Your task to perform on an android device: Open Google Chrome Image 0: 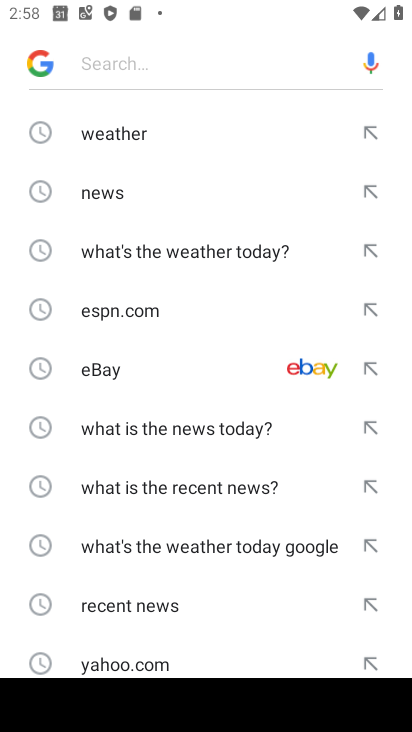
Step 0: press back button
Your task to perform on an android device: Open Google Chrome Image 1: 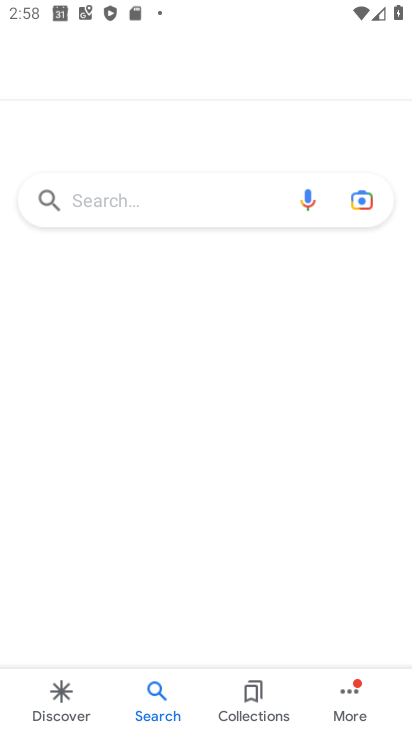
Step 1: press back button
Your task to perform on an android device: Open Google Chrome Image 2: 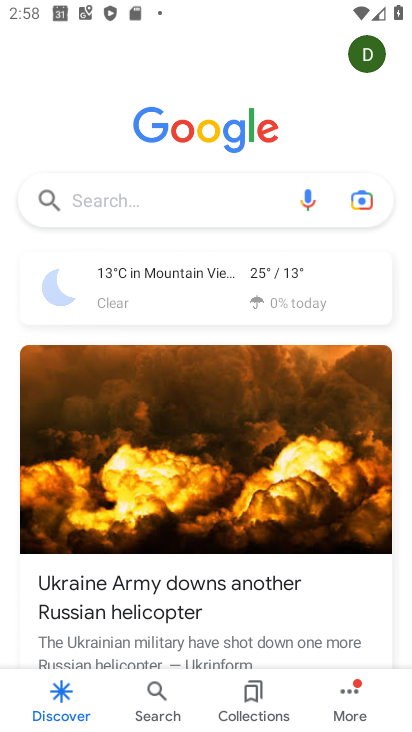
Step 2: press back button
Your task to perform on an android device: Open Google Chrome Image 3: 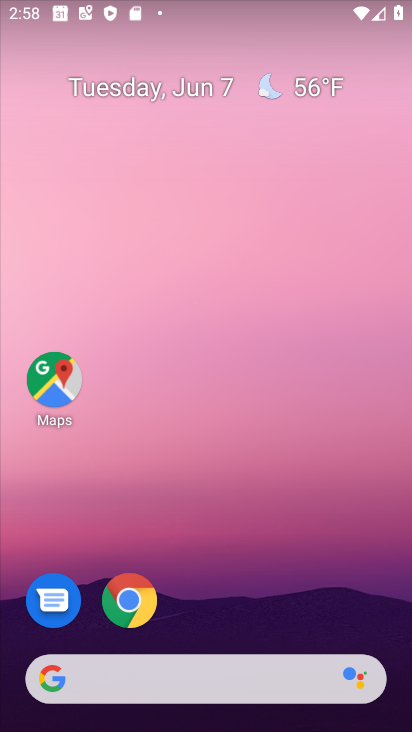
Step 3: click (121, 587)
Your task to perform on an android device: Open Google Chrome Image 4: 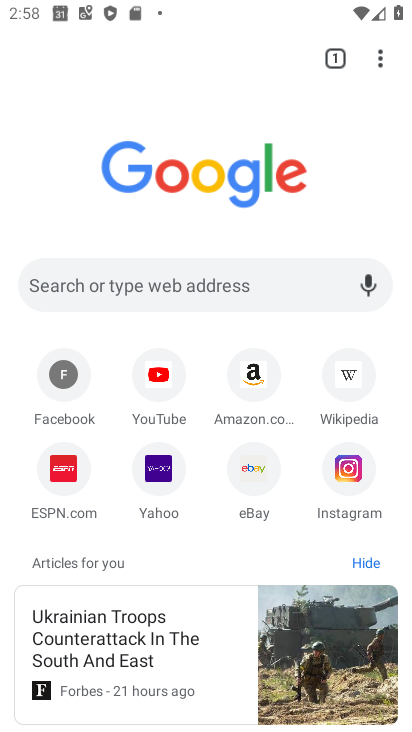
Step 4: task complete